Your task to perform on an android device: delete the emails in spam in the gmail app Image 0: 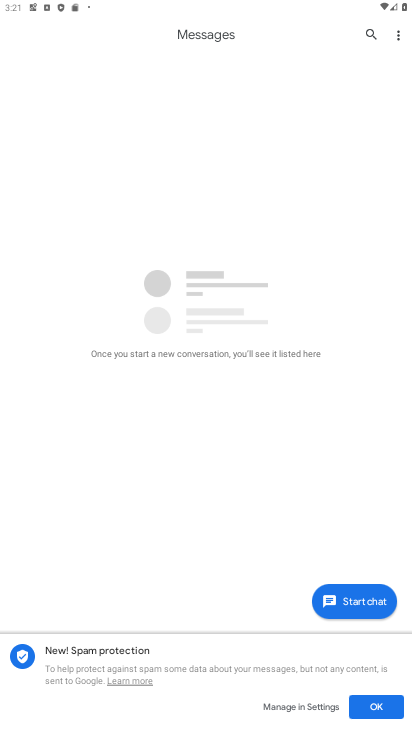
Step 0: press back button
Your task to perform on an android device: delete the emails in spam in the gmail app Image 1: 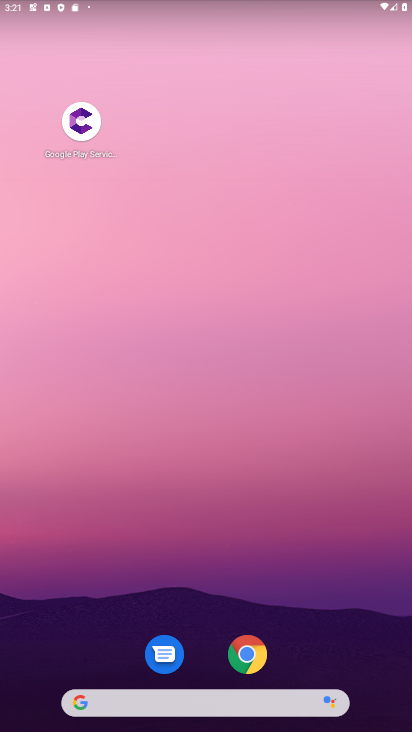
Step 1: drag from (321, 546) to (308, 157)
Your task to perform on an android device: delete the emails in spam in the gmail app Image 2: 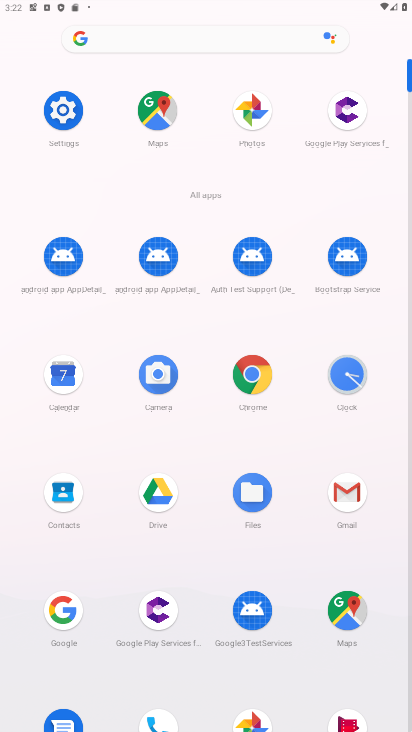
Step 2: drag from (357, 495) to (202, 187)
Your task to perform on an android device: delete the emails in spam in the gmail app Image 3: 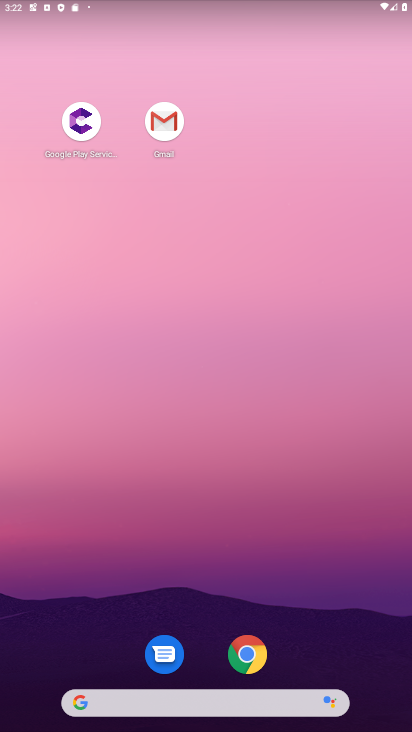
Step 3: click (165, 122)
Your task to perform on an android device: delete the emails in spam in the gmail app Image 4: 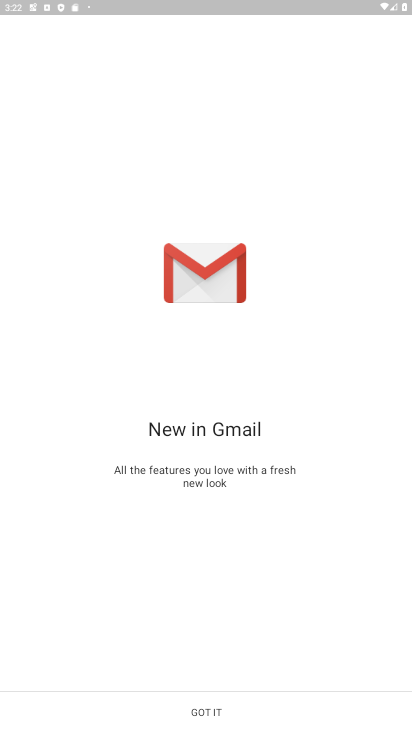
Step 4: click (256, 706)
Your task to perform on an android device: delete the emails in spam in the gmail app Image 5: 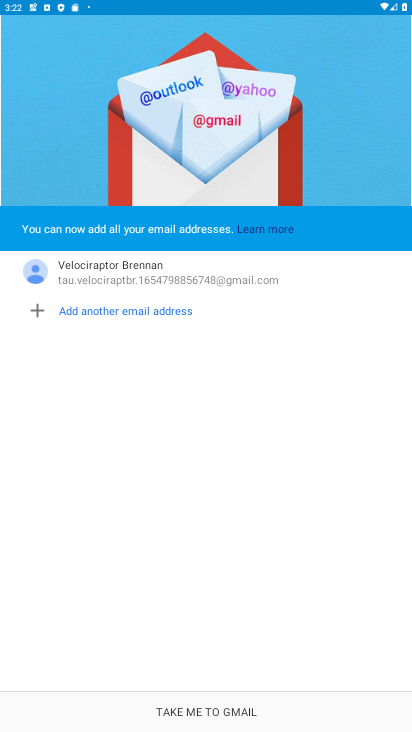
Step 5: click (235, 711)
Your task to perform on an android device: delete the emails in spam in the gmail app Image 6: 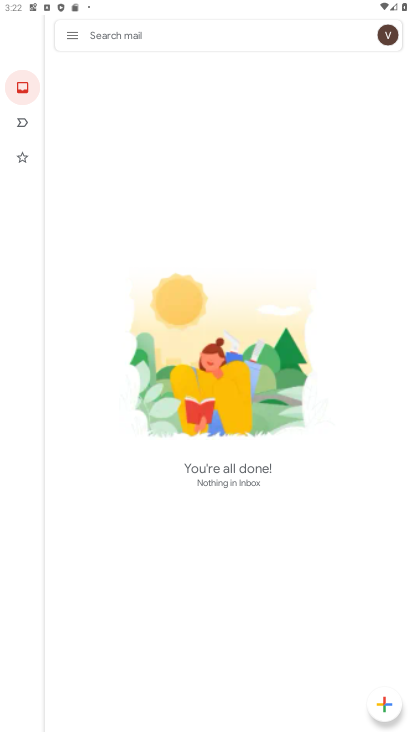
Step 6: click (61, 43)
Your task to perform on an android device: delete the emails in spam in the gmail app Image 7: 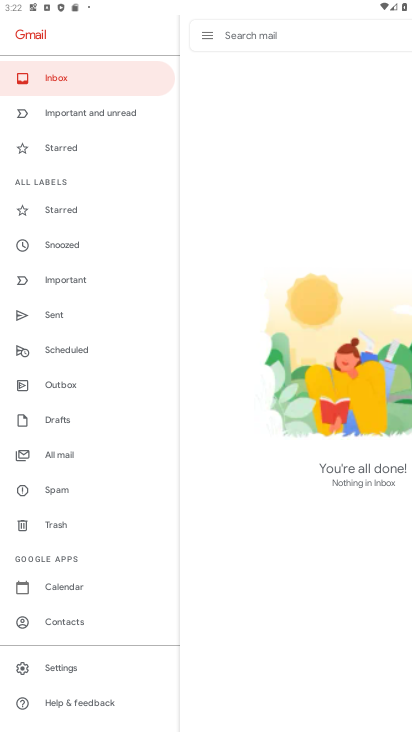
Step 7: click (78, 487)
Your task to perform on an android device: delete the emails in spam in the gmail app Image 8: 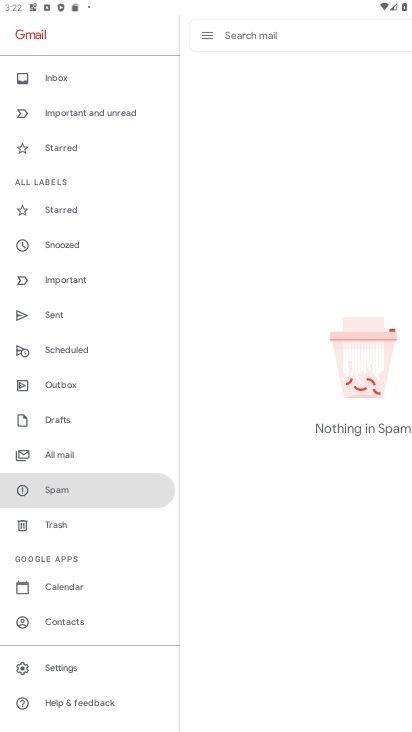
Step 8: task complete